Your task to perform on an android device: toggle data saver in the chrome app Image 0: 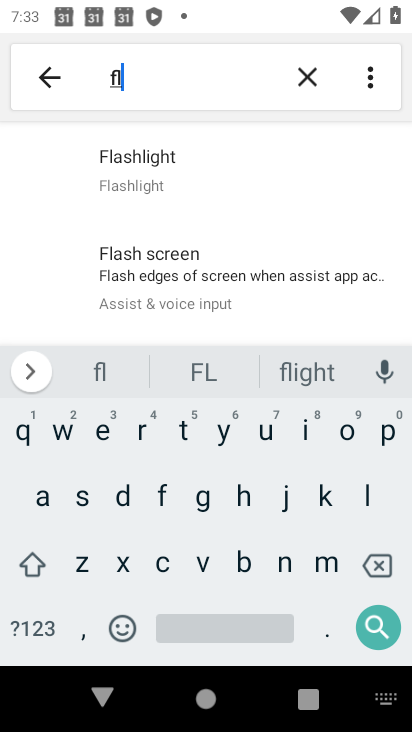
Step 0: press home button
Your task to perform on an android device: toggle data saver in the chrome app Image 1: 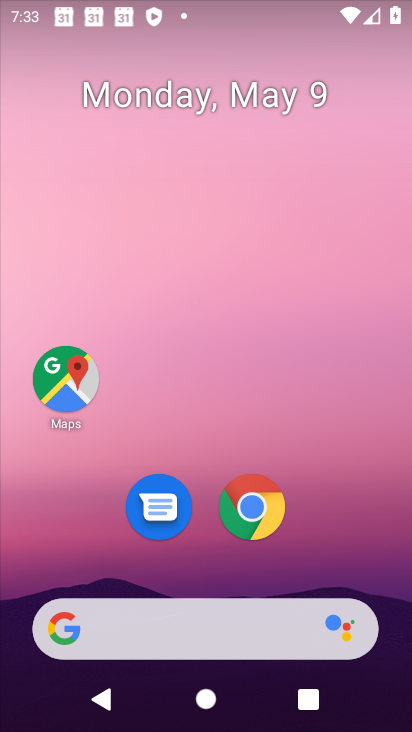
Step 1: drag from (266, 662) to (262, 255)
Your task to perform on an android device: toggle data saver in the chrome app Image 2: 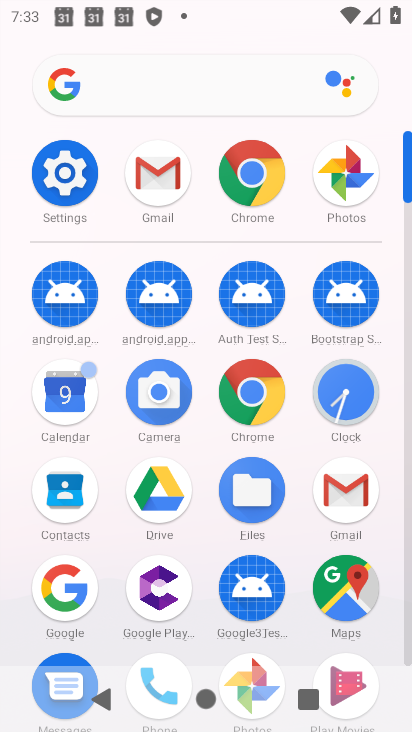
Step 2: click (55, 200)
Your task to perform on an android device: toggle data saver in the chrome app Image 3: 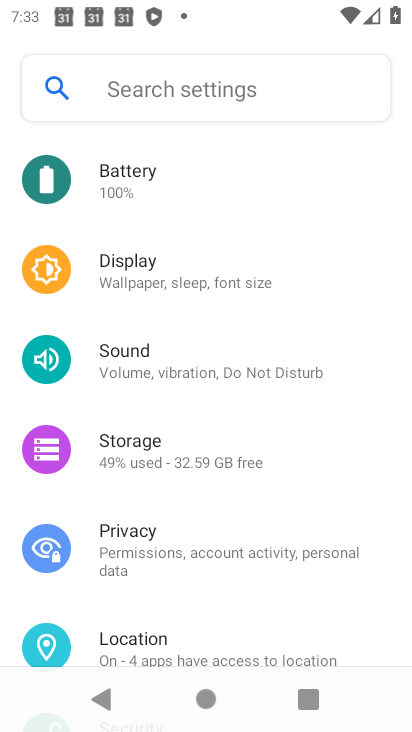
Step 3: press home button
Your task to perform on an android device: toggle data saver in the chrome app Image 4: 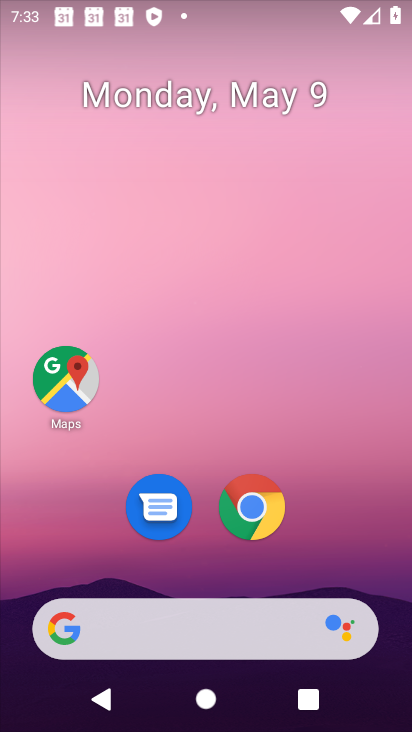
Step 4: click (274, 512)
Your task to perform on an android device: toggle data saver in the chrome app Image 5: 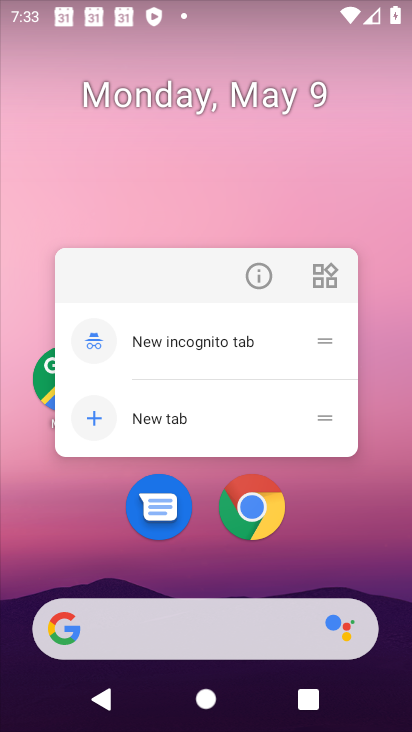
Step 5: click (264, 523)
Your task to perform on an android device: toggle data saver in the chrome app Image 6: 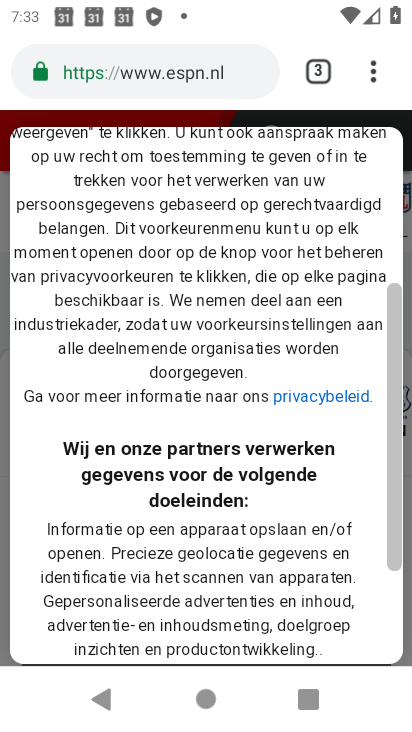
Step 6: click (355, 89)
Your task to perform on an android device: toggle data saver in the chrome app Image 7: 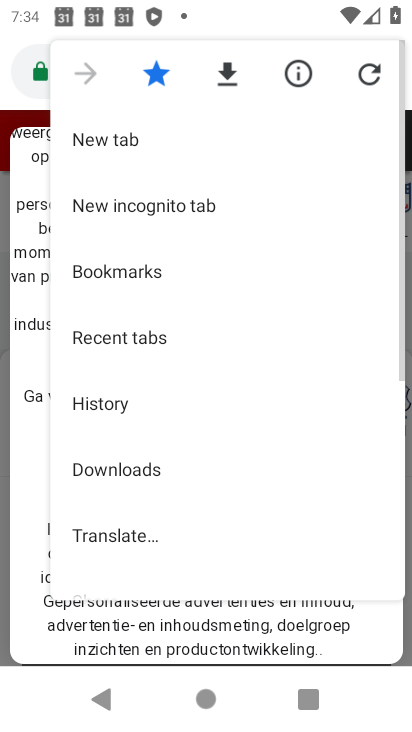
Step 7: drag from (176, 509) to (300, 240)
Your task to perform on an android device: toggle data saver in the chrome app Image 8: 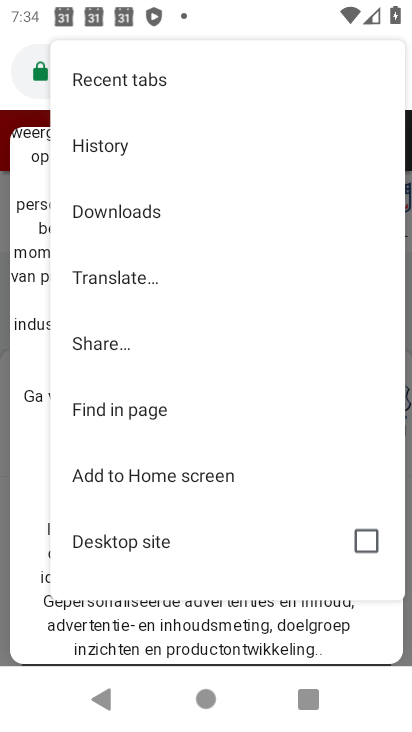
Step 8: drag from (187, 561) to (269, 411)
Your task to perform on an android device: toggle data saver in the chrome app Image 9: 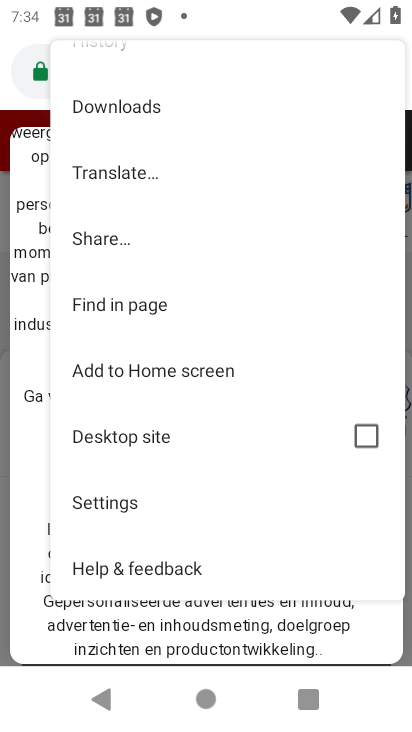
Step 9: click (181, 493)
Your task to perform on an android device: toggle data saver in the chrome app Image 10: 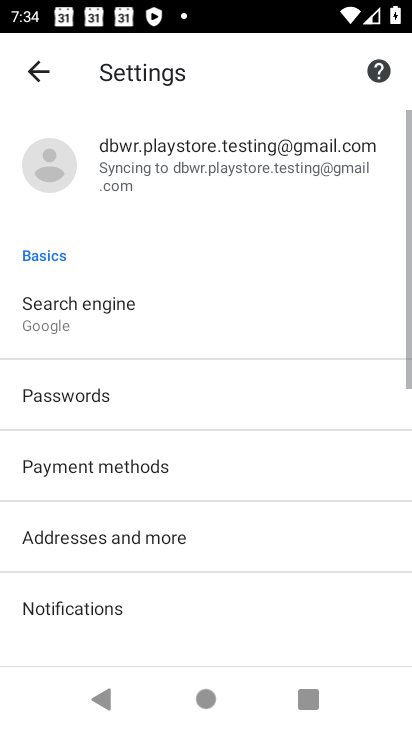
Step 10: drag from (181, 494) to (256, 304)
Your task to perform on an android device: toggle data saver in the chrome app Image 11: 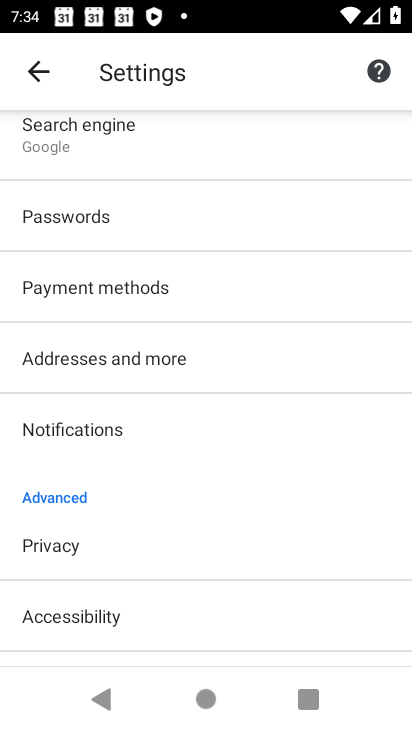
Step 11: drag from (214, 505) to (303, 332)
Your task to perform on an android device: toggle data saver in the chrome app Image 12: 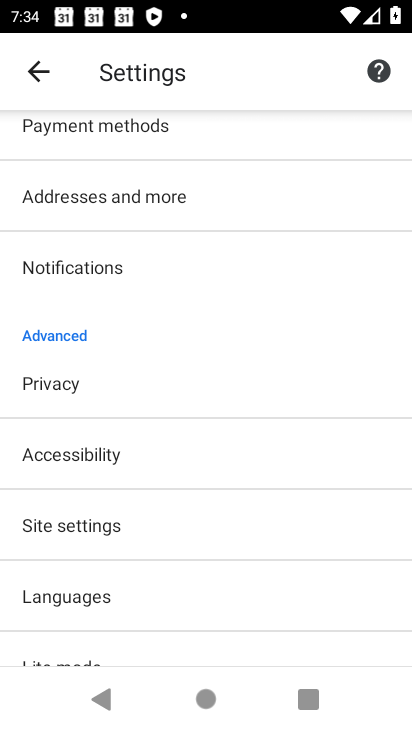
Step 12: drag from (93, 555) to (139, 448)
Your task to perform on an android device: toggle data saver in the chrome app Image 13: 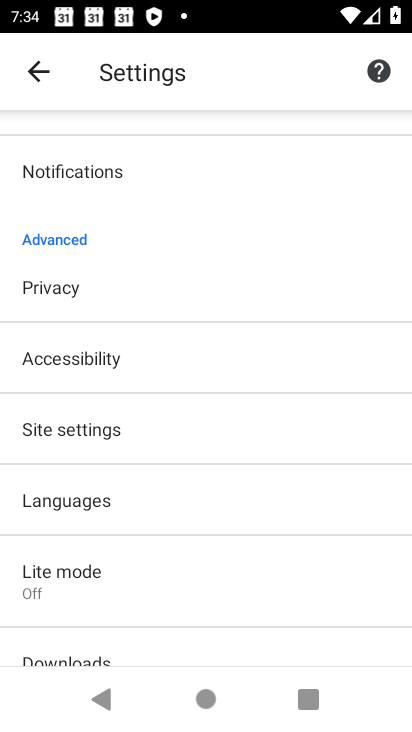
Step 13: click (87, 560)
Your task to perform on an android device: toggle data saver in the chrome app Image 14: 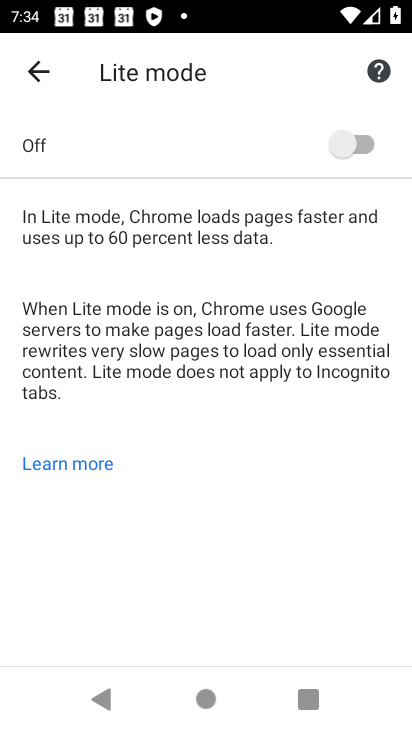
Step 14: click (360, 149)
Your task to perform on an android device: toggle data saver in the chrome app Image 15: 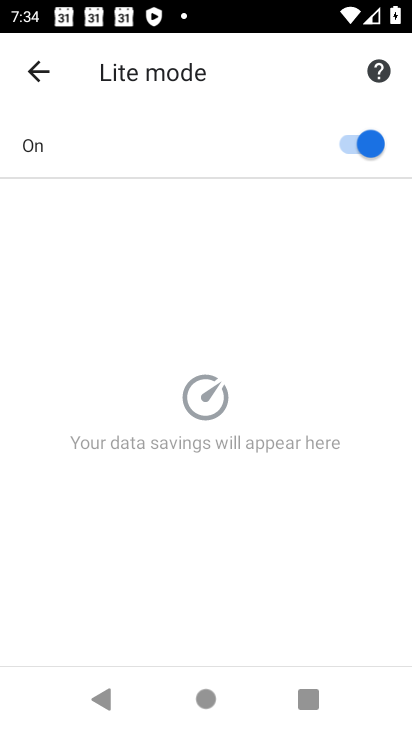
Step 15: task complete